Your task to perform on an android device: install app "Adobe Express: Graphic Design" Image 0: 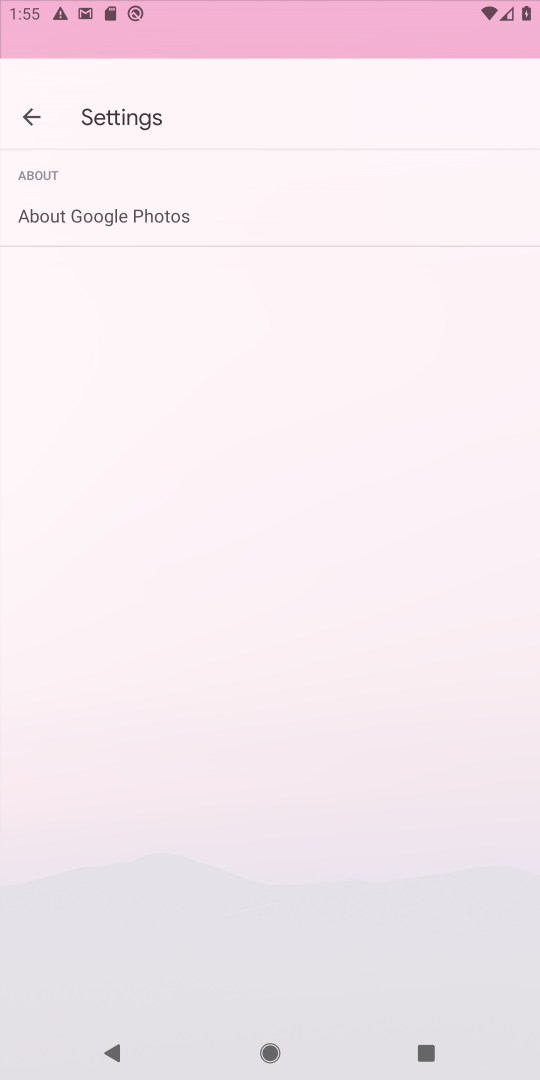
Step 0: press home button
Your task to perform on an android device: install app "Adobe Express: Graphic Design" Image 1: 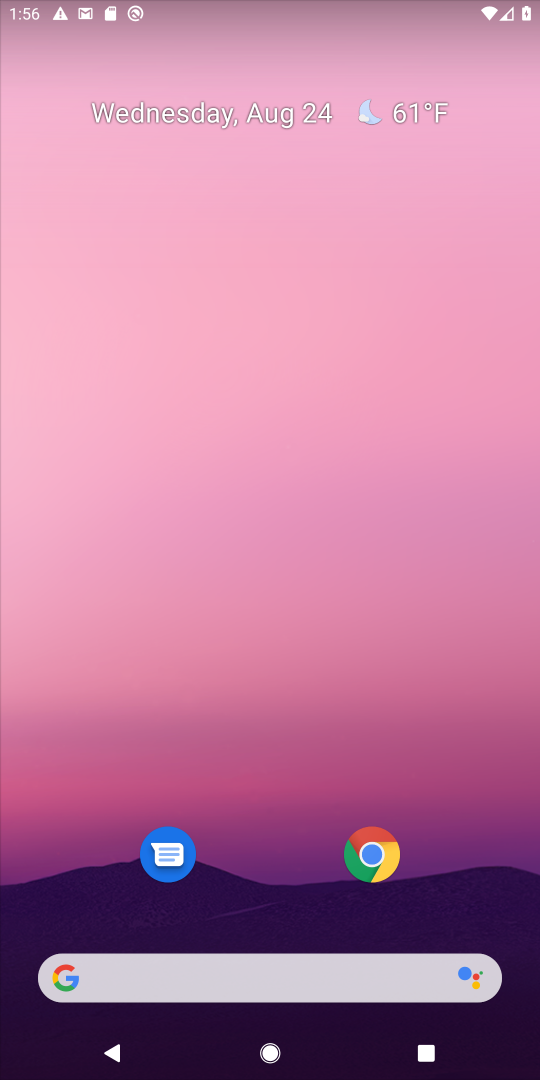
Step 1: drag from (455, 896) to (421, 47)
Your task to perform on an android device: install app "Adobe Express: Graphic Design" Image 2: 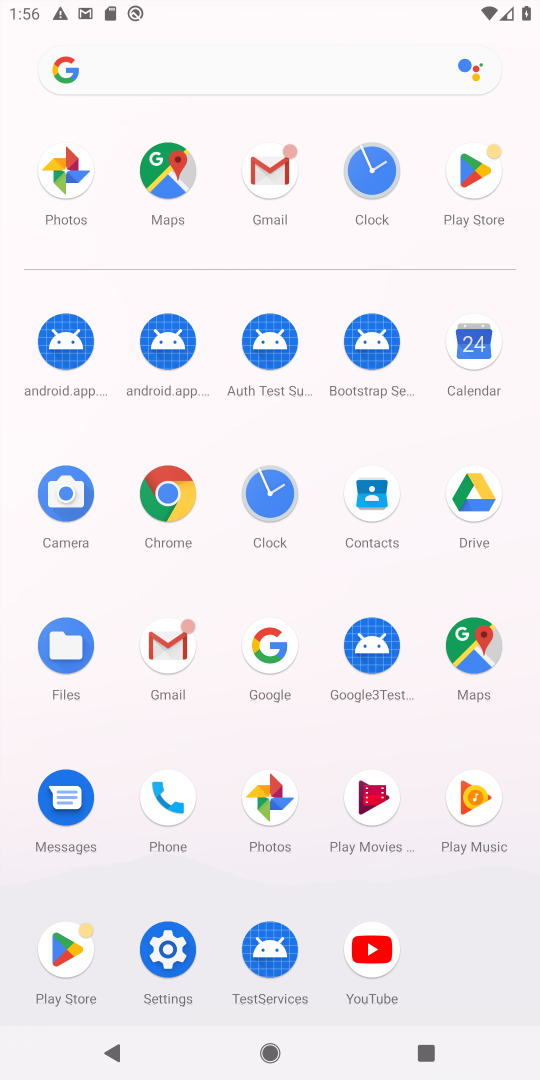
Step 2: click (484, 181)
Your task to perform on an android device: install app "Adobe Express: Graphic Design" Image 3: 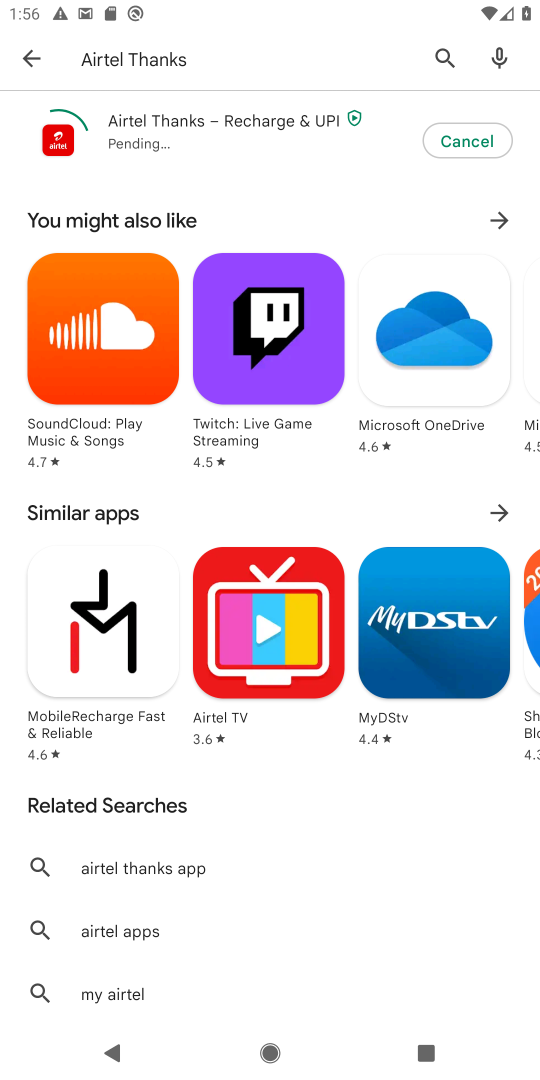
Step 3: press back button
Your task to perform on an android device: install app "Adobe Express: Graphic Design" Image 4: 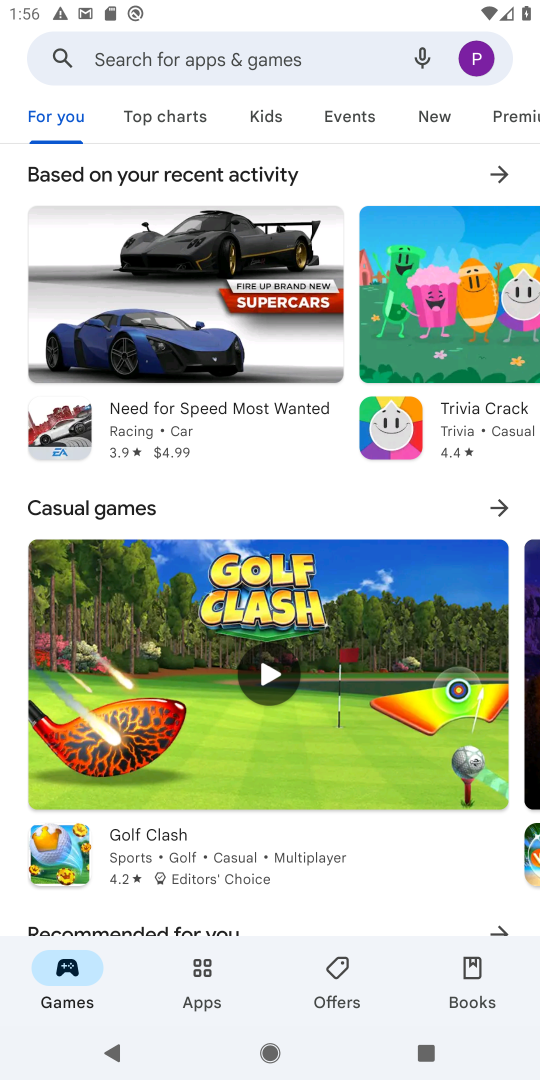
Step 4: click (240, 65)
Your task to perform on an android device: install app "Adobe Express: Graphic Design" Image 5: 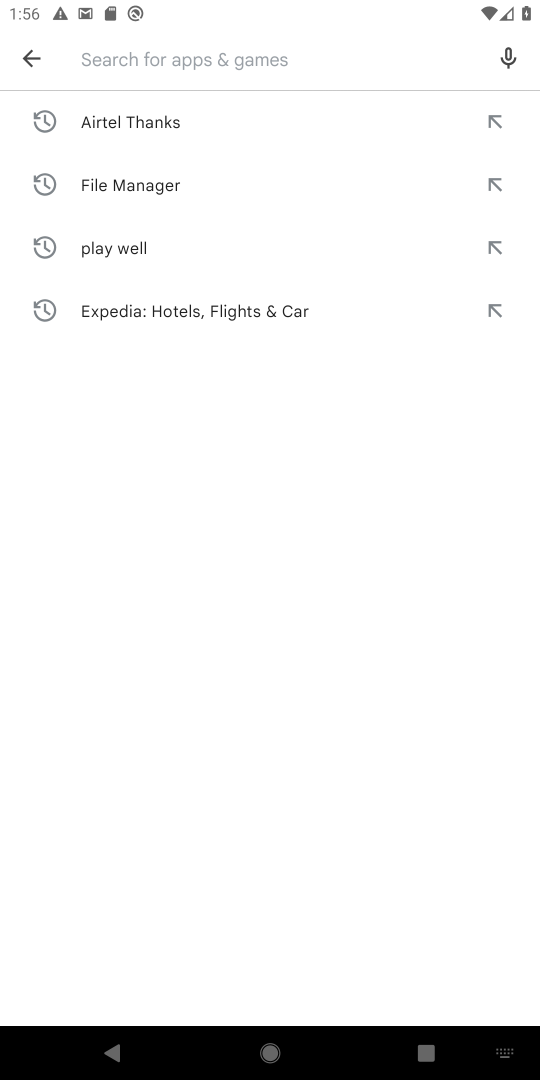
Step 5: press enter
Your task to perform on an android device: install app "Adobe Express: Graphic Design" Image 6: 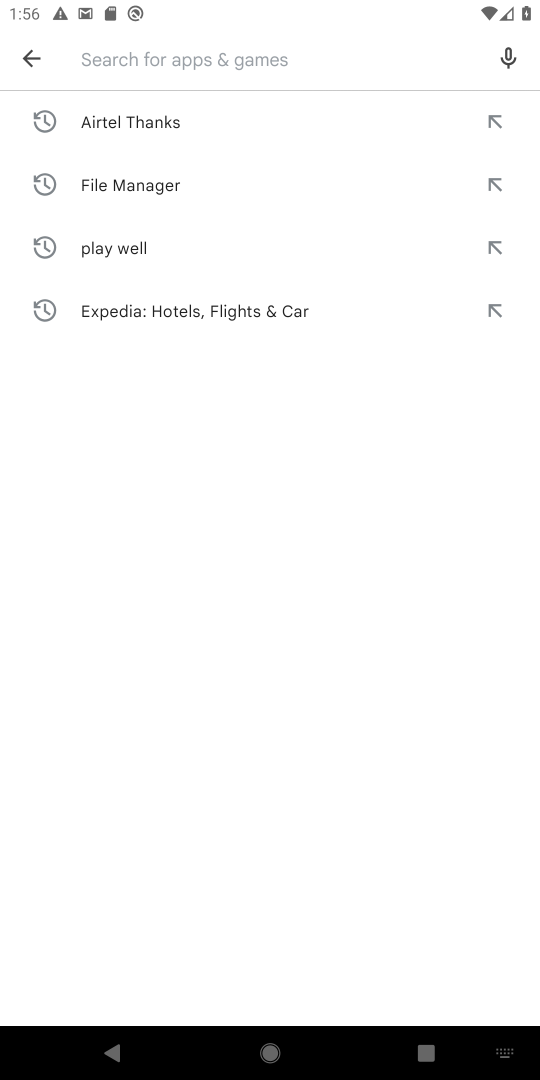
Step 6: type "Adobe Express: Graphic Design"
Your task to perform on an android device: install app "Adobe Express: Graphic Design" Image 7: 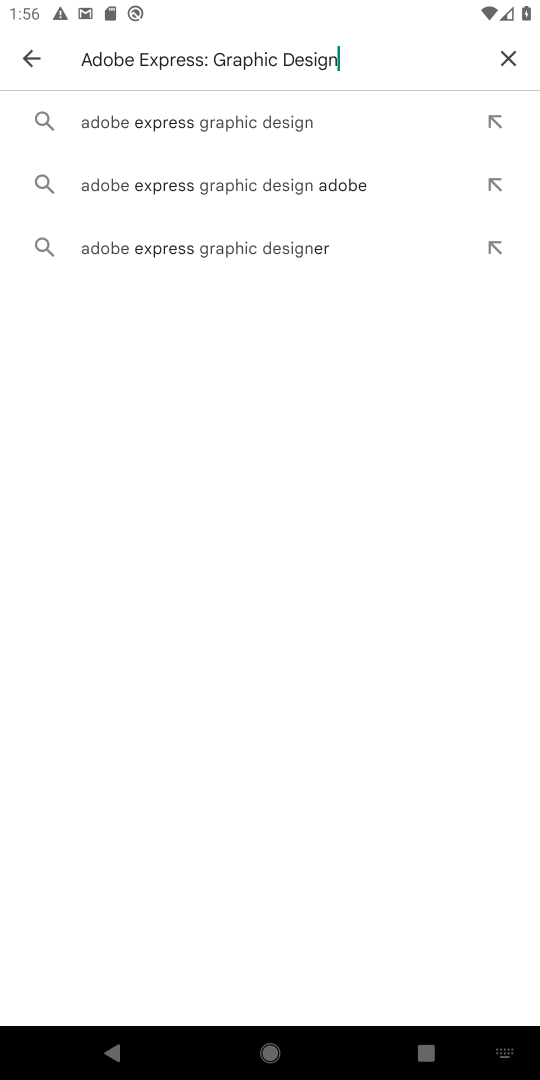
Step 7: click (305, 121)
Your task to perform on an android device: install app "Adobe Express: Graphic Design" Image 8: 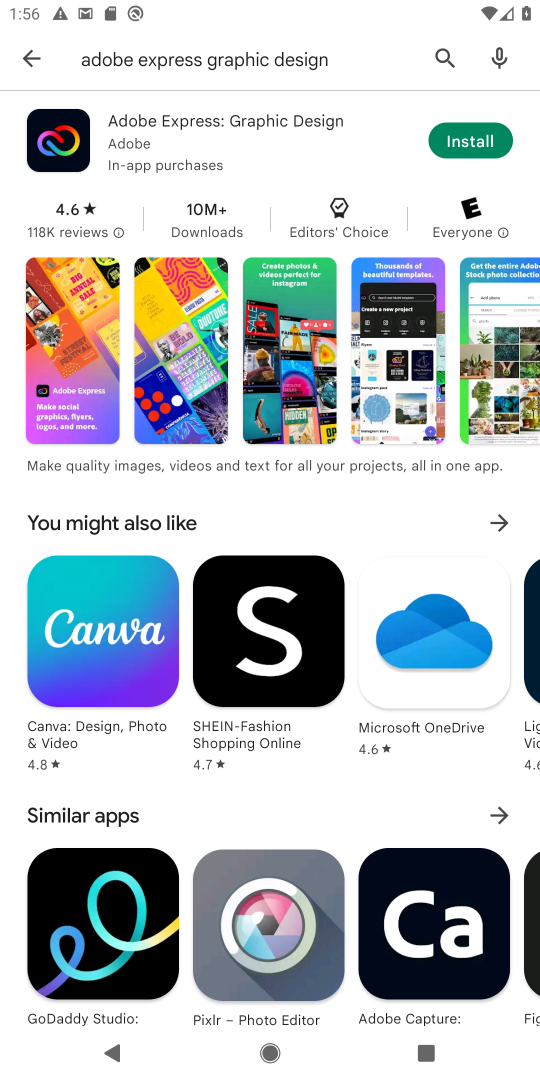
Step 8: click (466, 142)
Your task to perform on an android device: install app "Adobe Express: Graphic Design" Image 9: 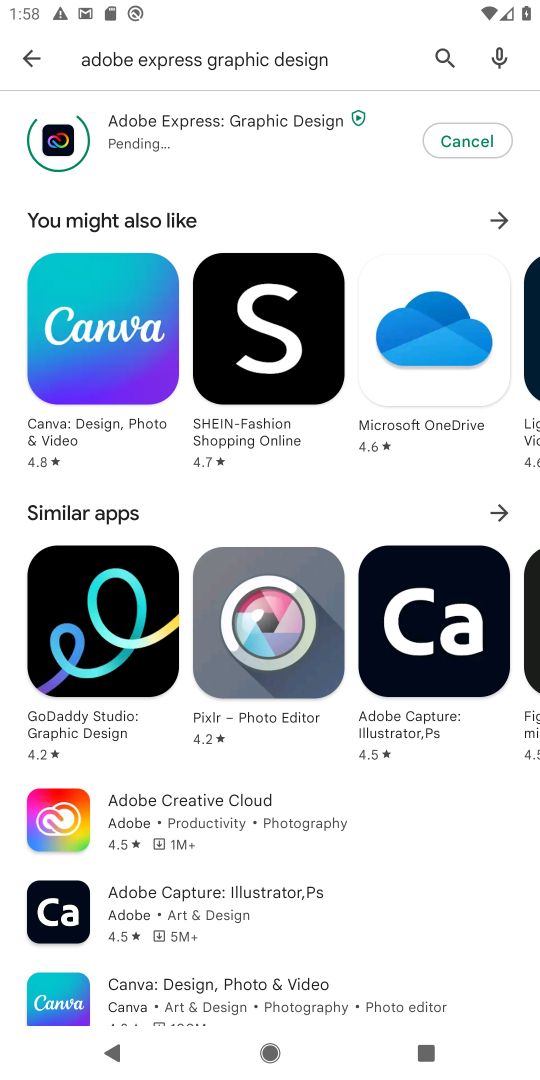
Step 9: task complete